Your task to perform on an android device: Turn on the flashlight Image 0: 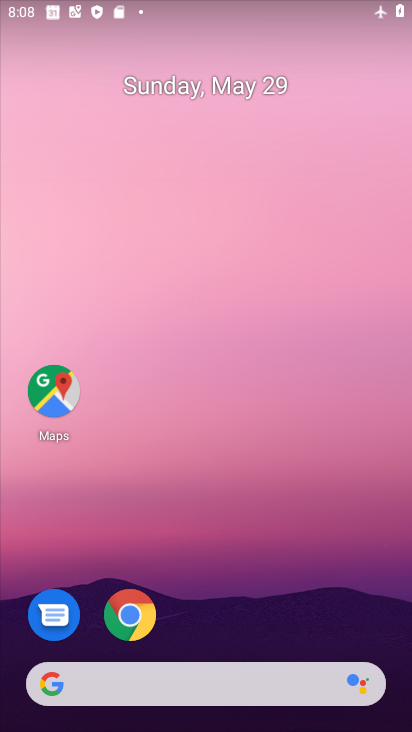
Step 0: drag from (361, 2) to (347, 394)
Your task to perform on an android device: Turn on the flashlight Image 1: 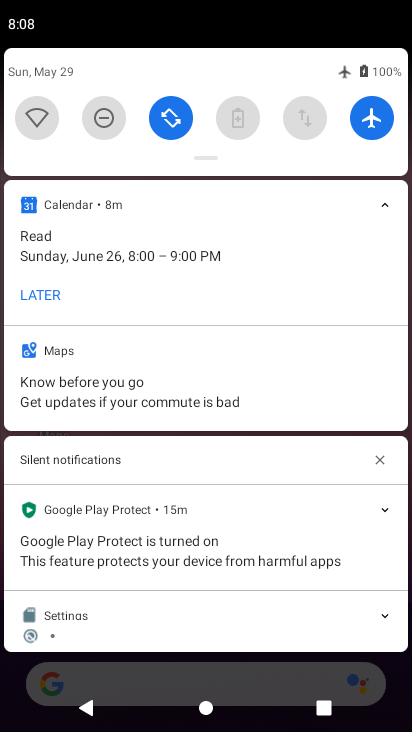
Step 1: click (367, 125)
Your task to perform on an android device: Turn on the flashlight Image 2: 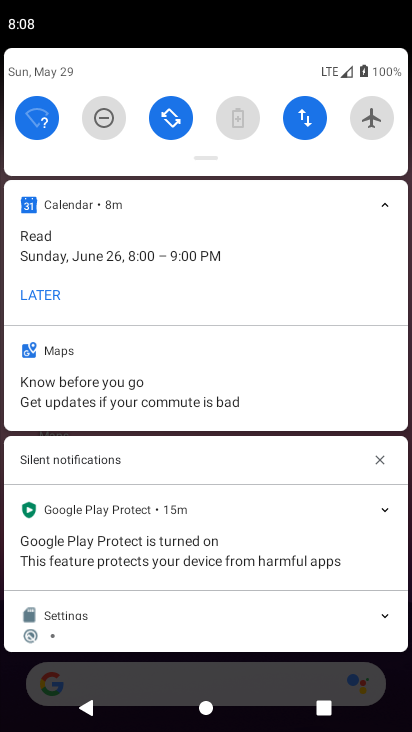
Step 2: task complete